Your task to perform on an android device: check the backup settings in the google photos Image 0: 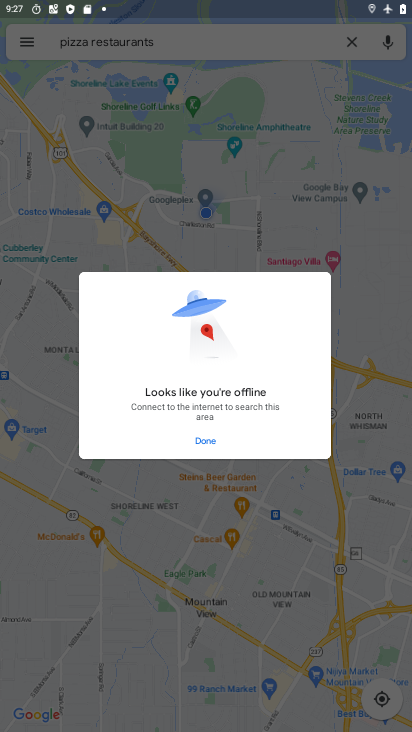
Step 0: press home button
Your task to perform on an android device: check the backup settings in the google photos Image 1: 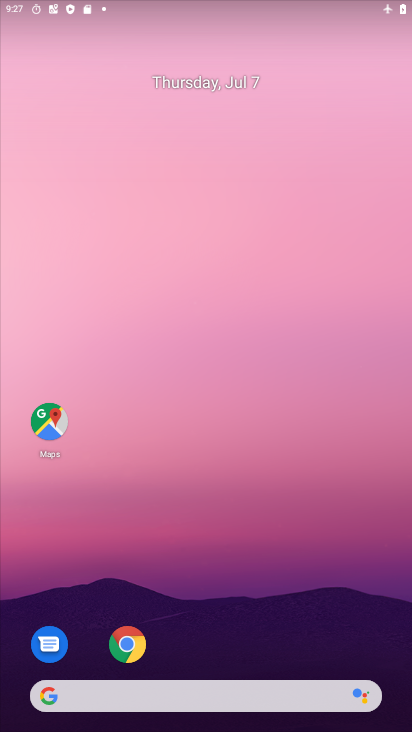
Step 1: drag from (352, 618) to (170, 159)
Your task to perform on an android device: check the backup settings in the google photos Image 2: 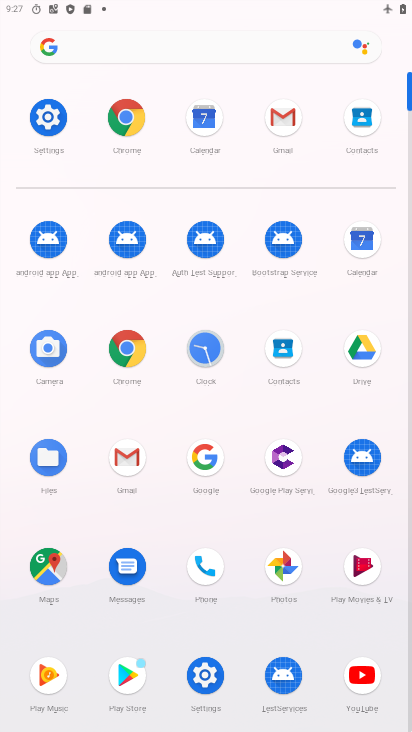
Step 2: click (280, 569)
Your task to perform on an android device: check the backup settings in the google photos Image 3: 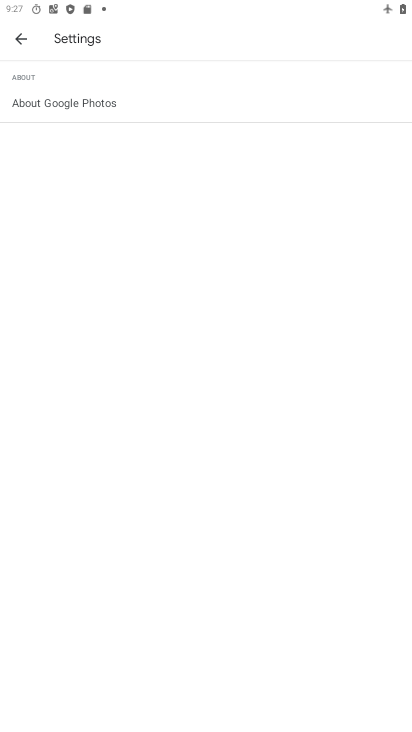
Step 3: click (25, 36)
Your task to perform on an android device: check the backup settings in the google photos Image 4: 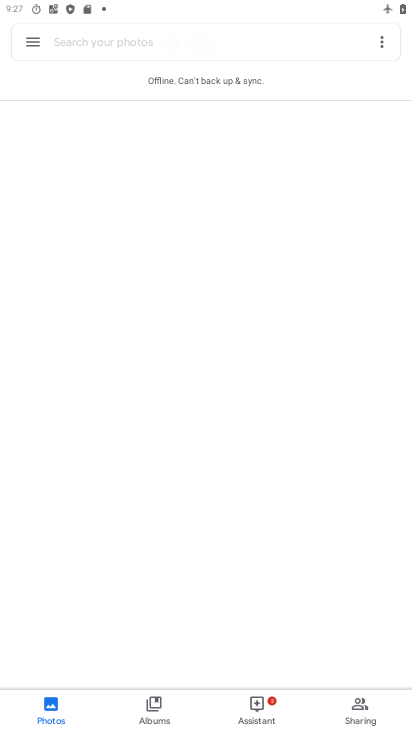
Step 4: click (28, 37)
Your task to perform on an android device: check the backup settings in the google photos Image 5: 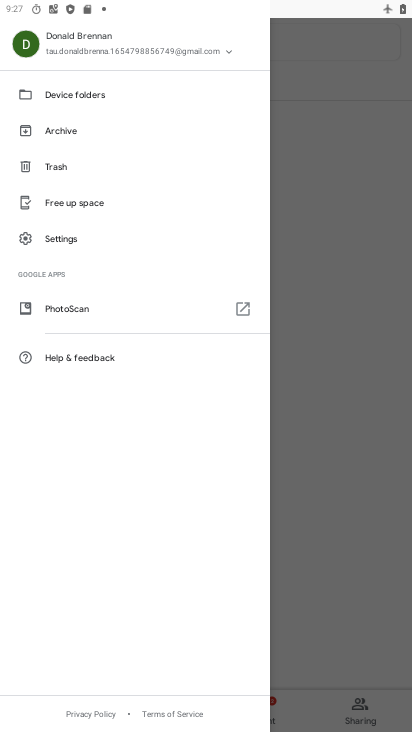
Step 5: click (61, 236)
Your task to perform on an android device: check the backup settings in the google photos Image 6: 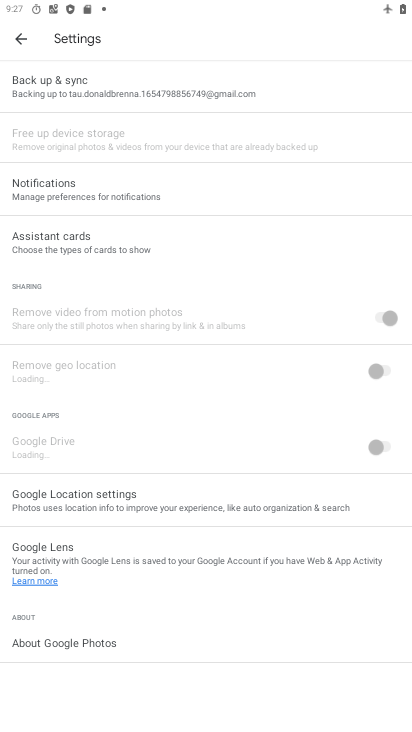
Step 6: click (186, 90)
Your task to perform on an android device: check the backup settings in the google photos Image 7: 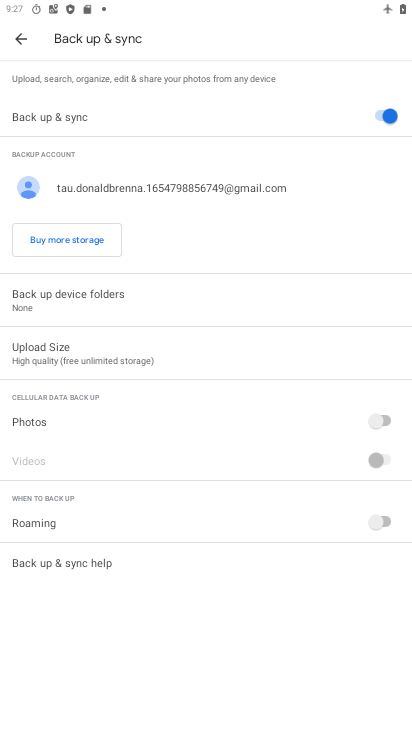
Step 7: task complete